Your task to perform on an android device: toggle sleep mode Image 0: 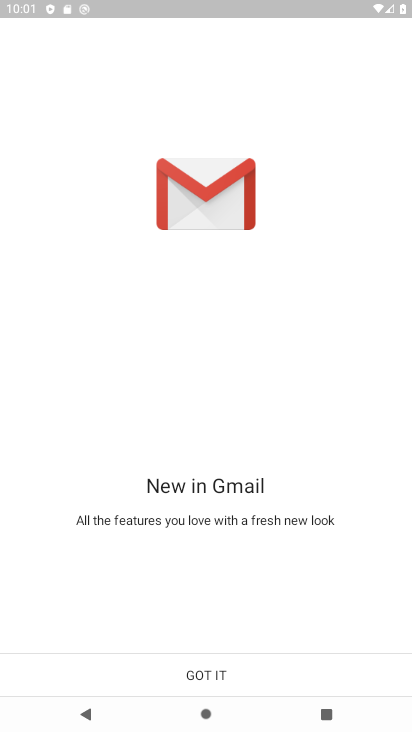
Step 0: press home button
Your task to perform on an android device: toggle sleep mode Image 1: 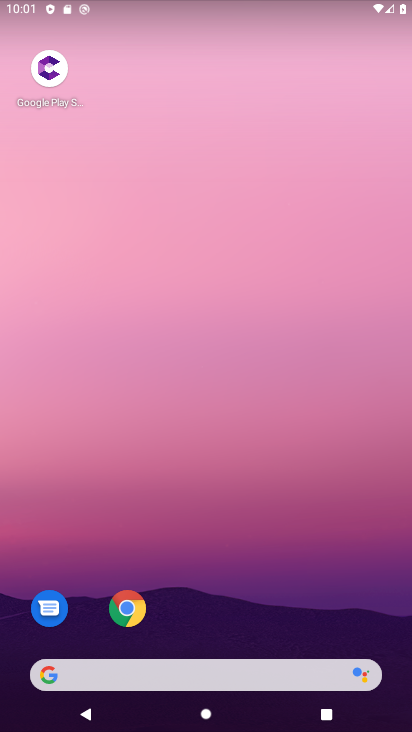
Step 1: drag from (246, 644) to (327, 137)
Your task to perform on an android device: toggle sleep mode Image 2: 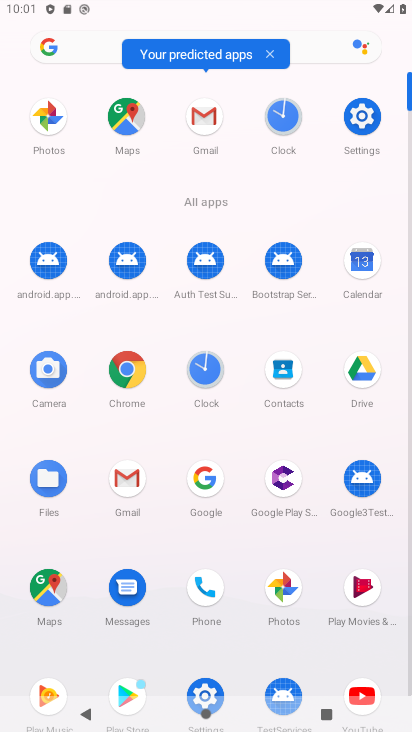
Step 2: drag from (258, 640) to (325, 448)
Your task to perform on an android device: toggle sleep mode Image 3: 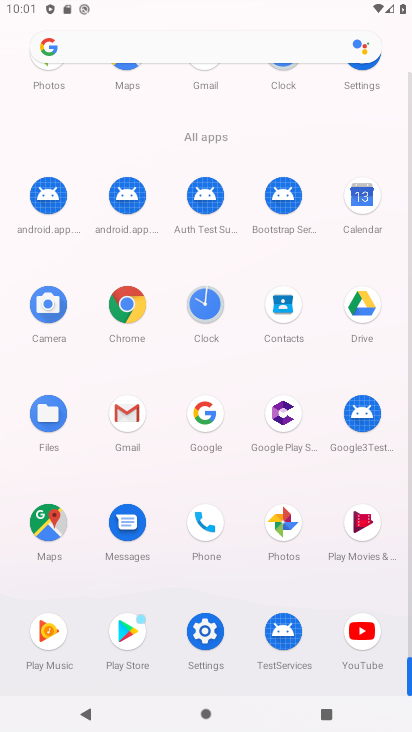
Step 3: click (202, 634)
Your task to perform on an android device: toggle sleep mode Image 4: 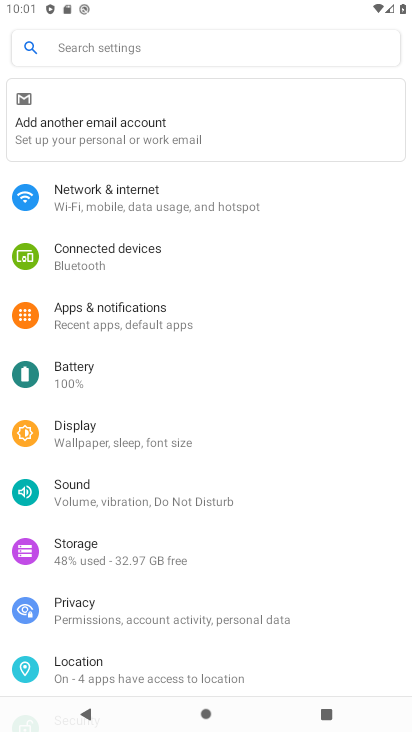
Step 4: click (94, 442)
Your task to perform on an android device: toggle sleep mode Image 5: 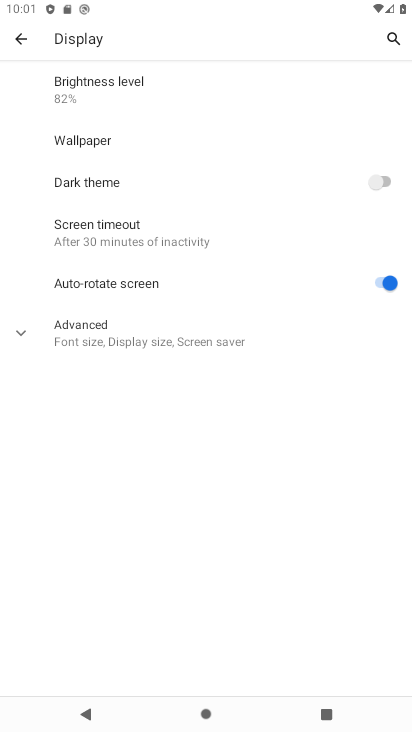
Step 5: click (150, 345)
Your task to perform on an android device: toggle sleep mode Image 6: 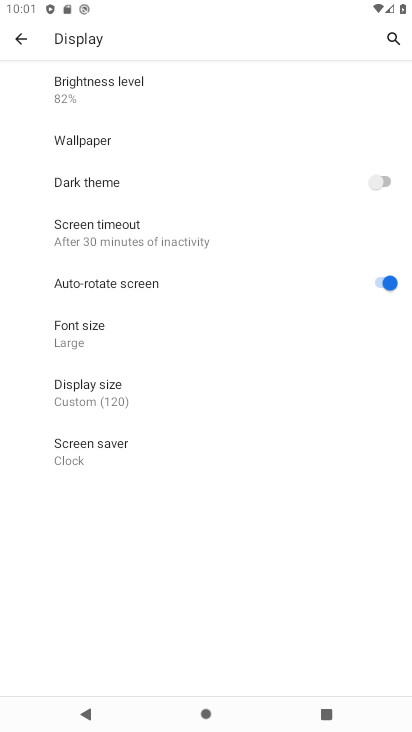
Step 6: task complete